Your task to perform on an android device: empty trash in the gmail app Image 0: 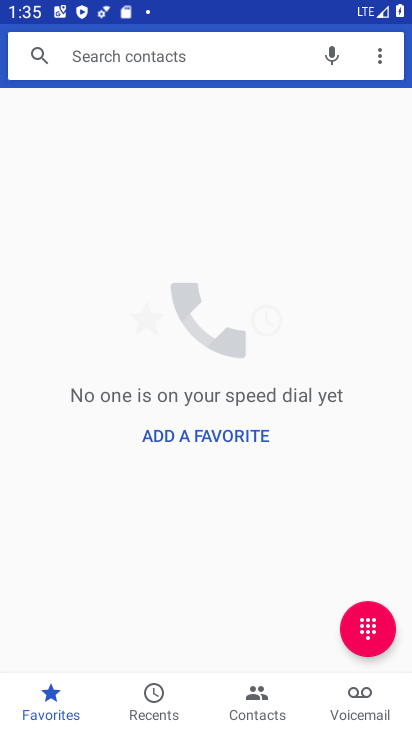
Step 0: press home button
Your task to perform on an android device: empty trash in the gmail app Image 1: 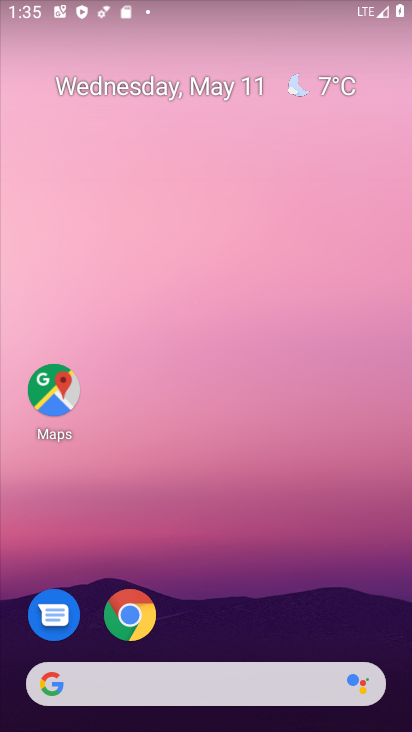
Step 1: drag from (286, 517) to (357, 151)
Your task to perform on an android device: empty trash in the gmail app Image 2: 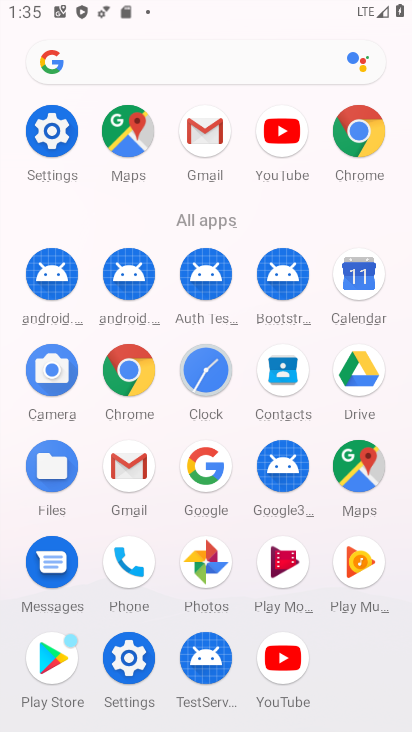
Step 2: click (212, 137)
Your task to perform on an android device: empty trash in the gmail app Image 3: 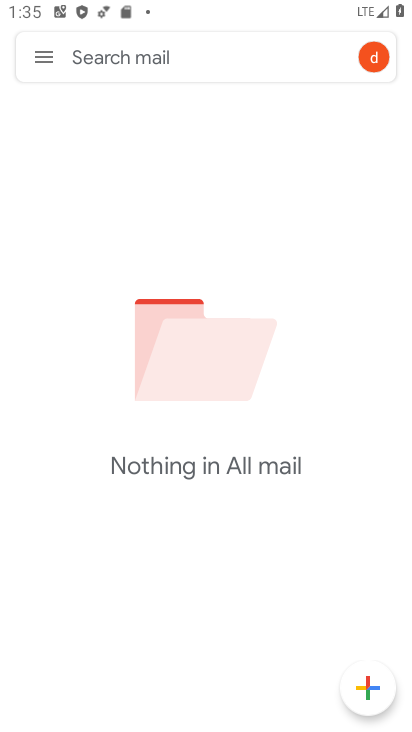
Step 3: click (39, 60)
Your task to perform on an android device: empty trash in the gmail app Image 4: 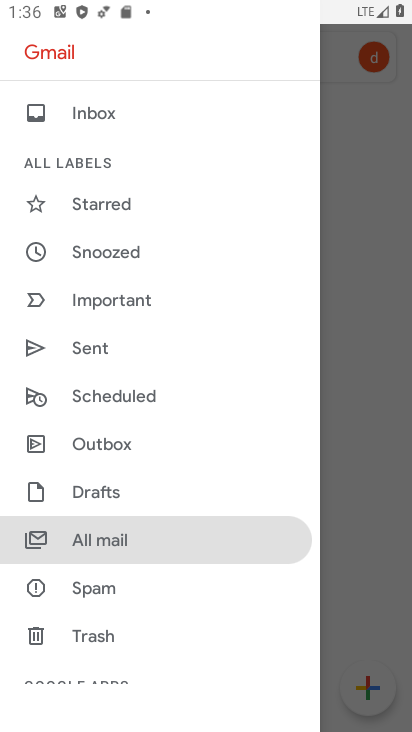
Step 4: drag from (133, 581) to (227, 318)
Your task to perform on an android device: empty trash in the gmail app Image 5: 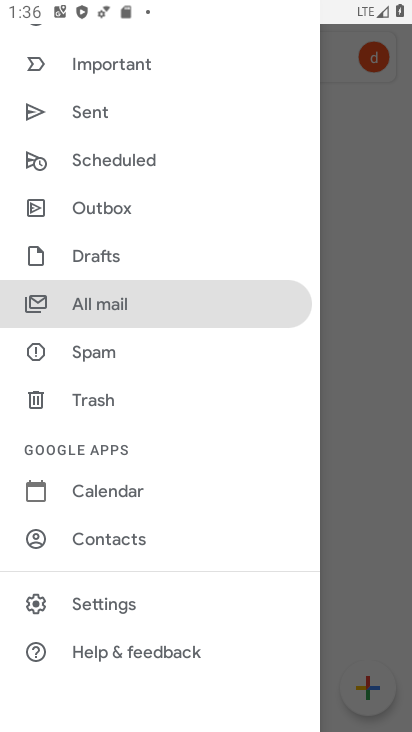
Step 5: click (104, 404)
Your task to perform on an android device: empty trash in the gmail app Image 6: 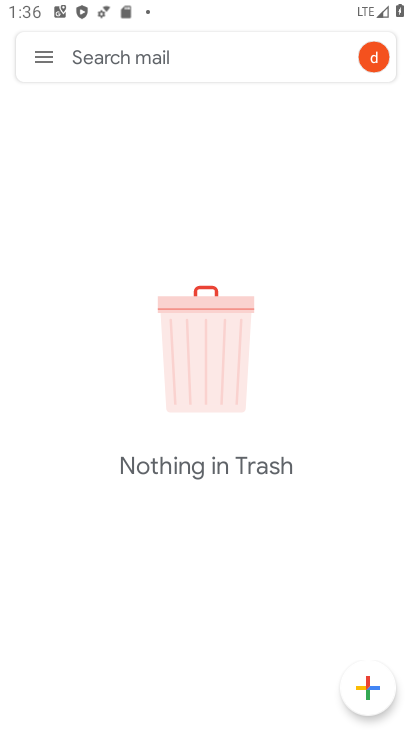
Step 6: task complete